Your task to perform on an android device: change the clock display to show seconds Image 0: 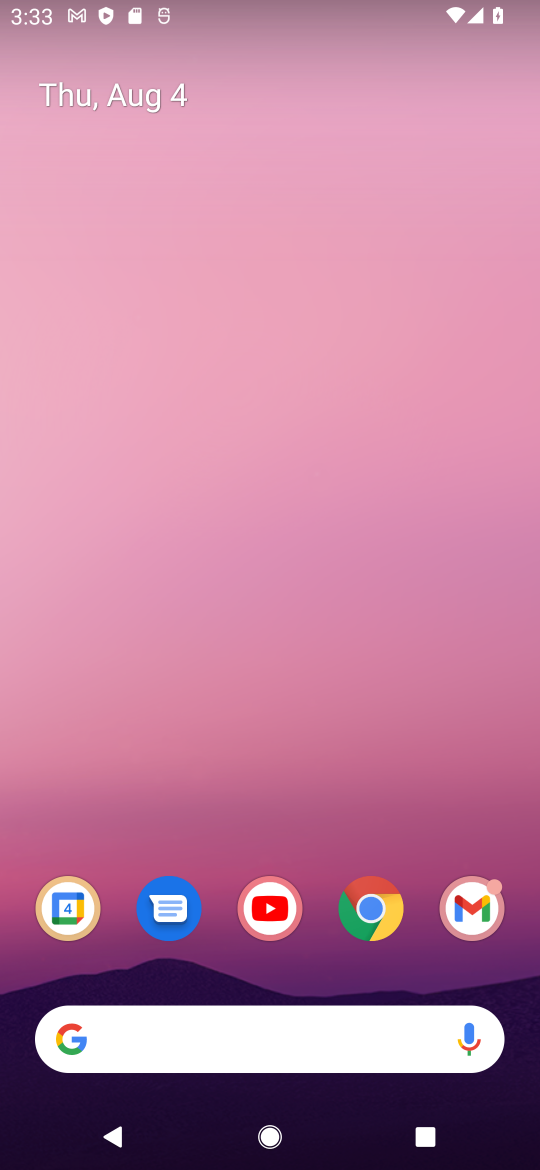
Step 0: drag from (243, 974) to (261, 189)
Your task to perform on an android device: change the clock display to show seconds Image 1: 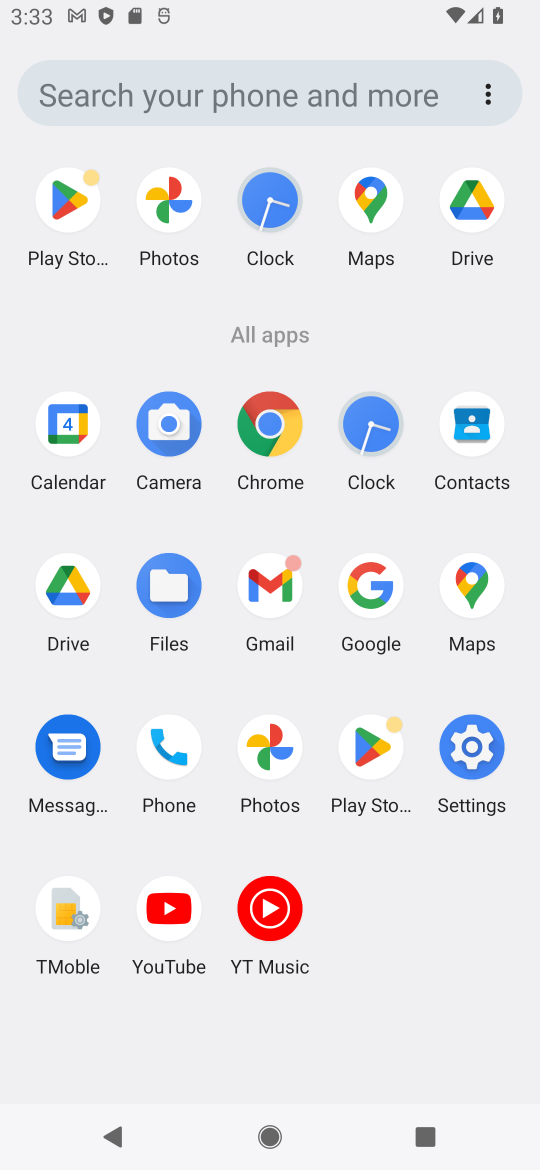
Step 1: click (265, 216)
Your task to perform on an android device: change the clock display to show seconds Image 2: 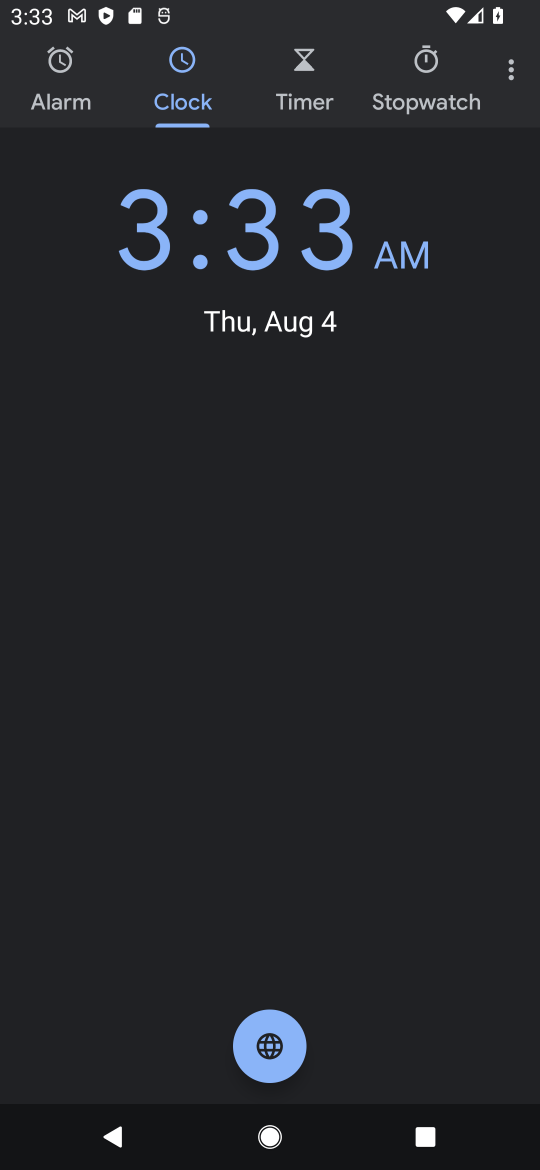
Step 2: click (508, 71)
Your task to perform on an android device: change the clock display to show seconds Image 3: 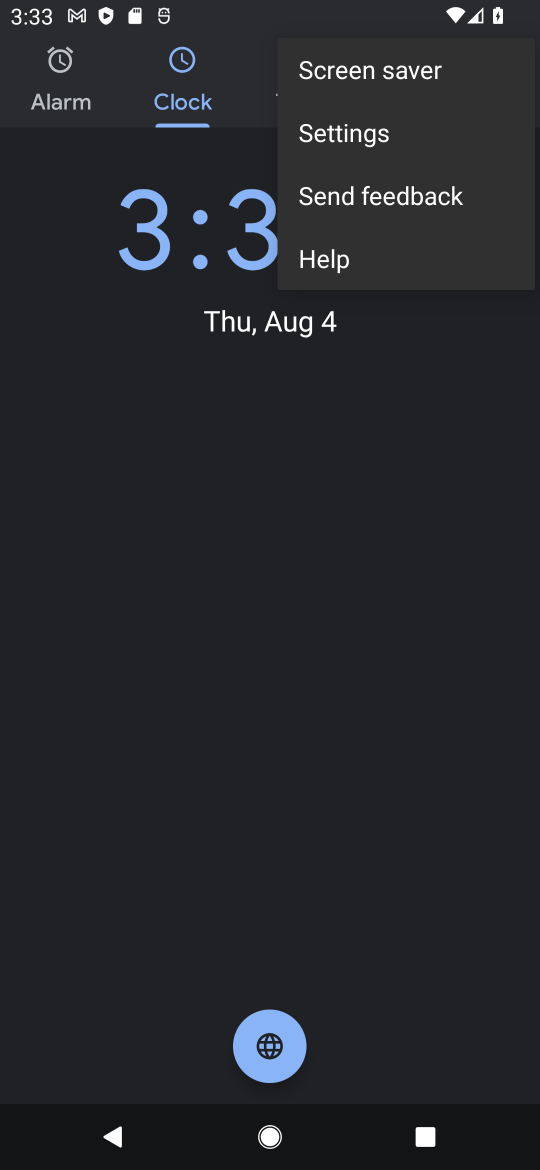
Step 3: click (386, 146)
Your task to perform on an android device: change the clock display to show seconds Image 4: 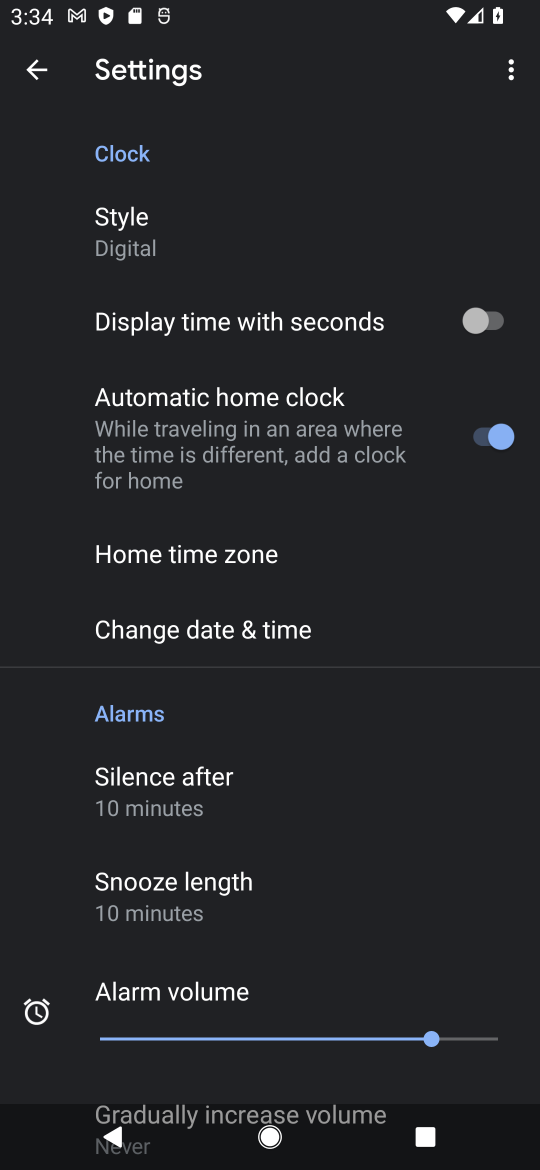
Step 4: click (481, 329)
Your task to perform on an android device: change the clock display to show seconds Image 5: 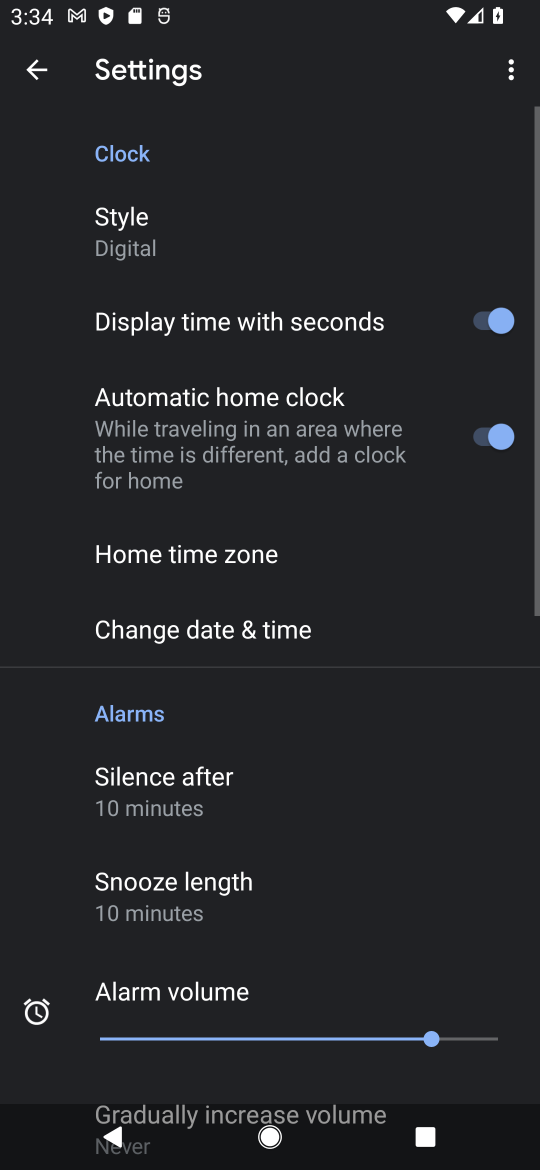
Step 5: task complete